Your task to perform on an android device: open chrome privacy settings Image 0: 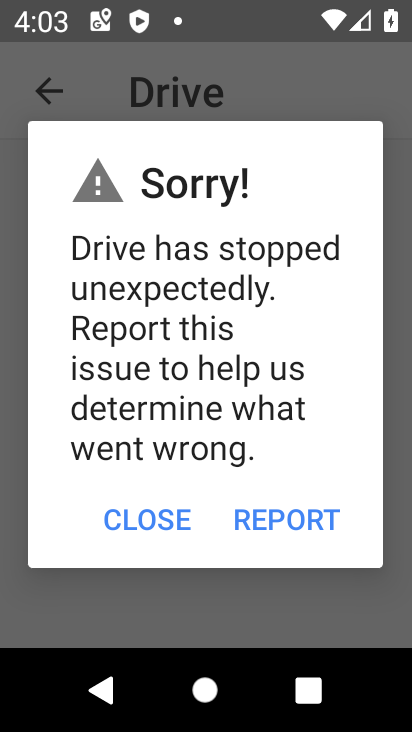
Step 0: press home button
Your task to perform on an android device: open chrome privacy settings Image 1: 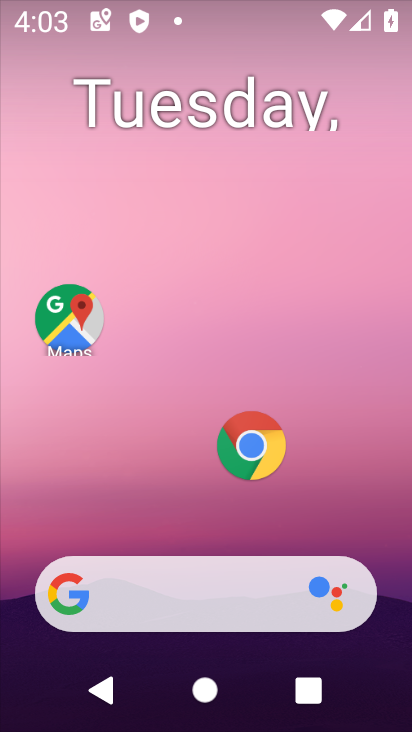
Step 1: drag from (216, 536) to (209, 223)
Your task to perform on an android device: open chrome privacy settings Image 2: 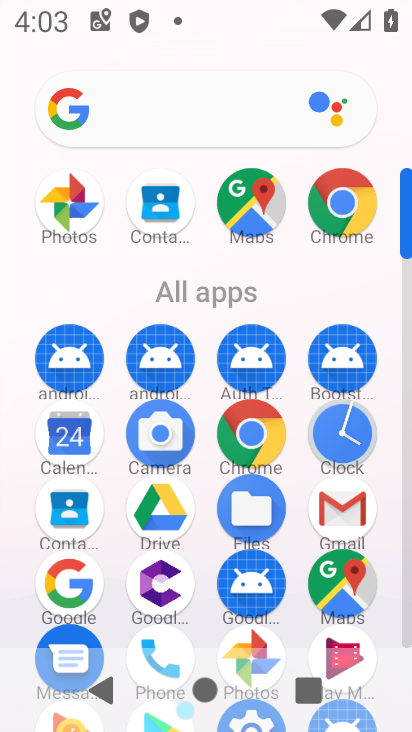
Step 2: click (352, 194)
Your task to perform on an android device: open chrome privacy settings Image 3: 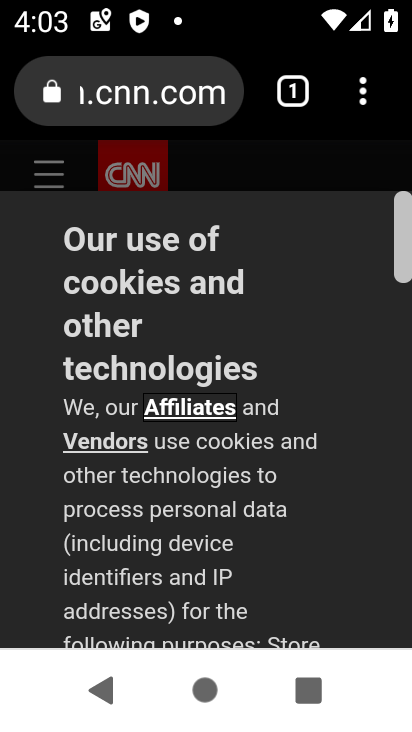
Step 3: click (358, 106)
Your task to perform on an android device: open chrome privacy settings Image 4: 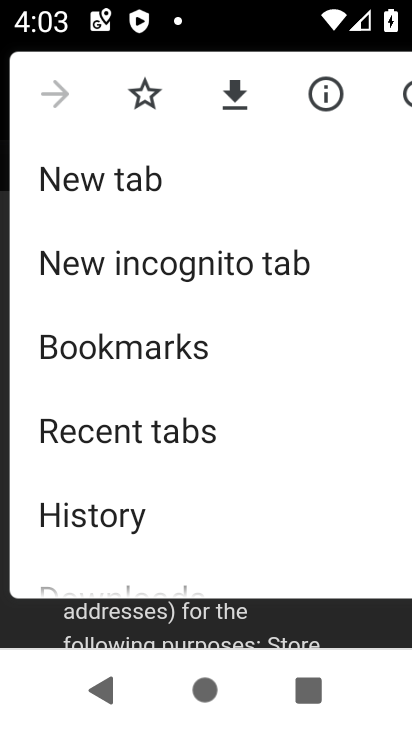
Step 4: drag from (107, 510) to (158, 209)
Your task to perform on an android device: open chrome privacy settings Image 5: 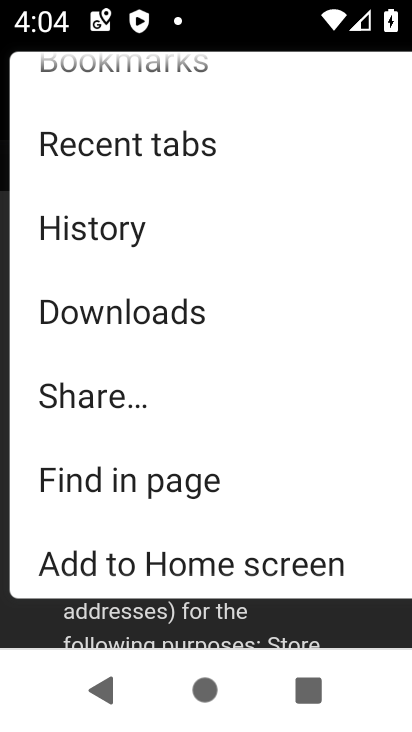
Step 5: drag from (120, 486) to (169, 212)
Your task to perform on an android device: open chrome privacy settings Image 6: 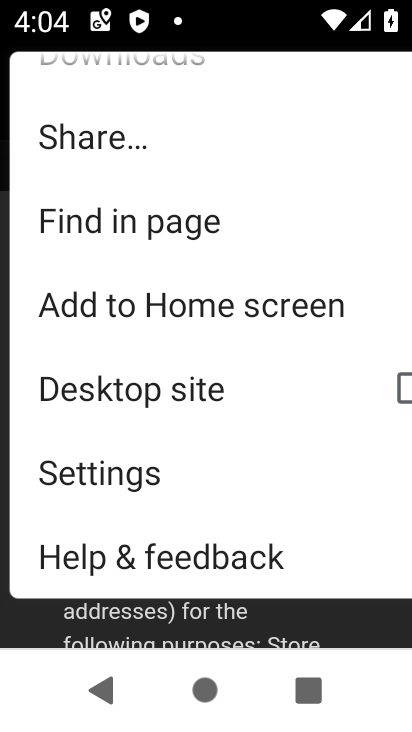
Step 6: click (111, 463)
Your task to perform on an android device: open chrome privacy settings Image 7: 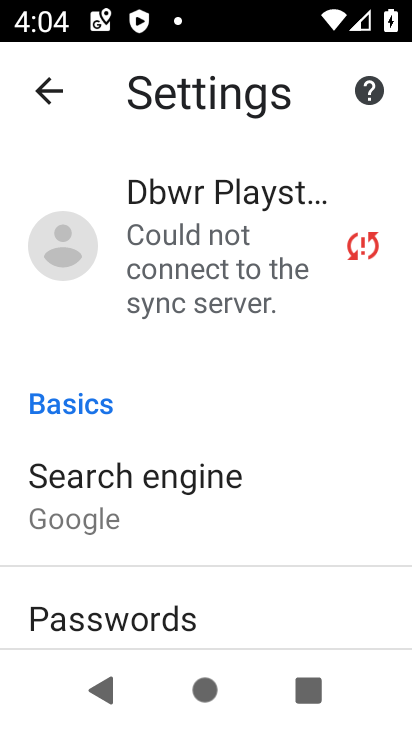
Step 7: drag from (189, 543) to (218, 199)
Your task to perform on an android device: open chrome privacy settings Image 8: 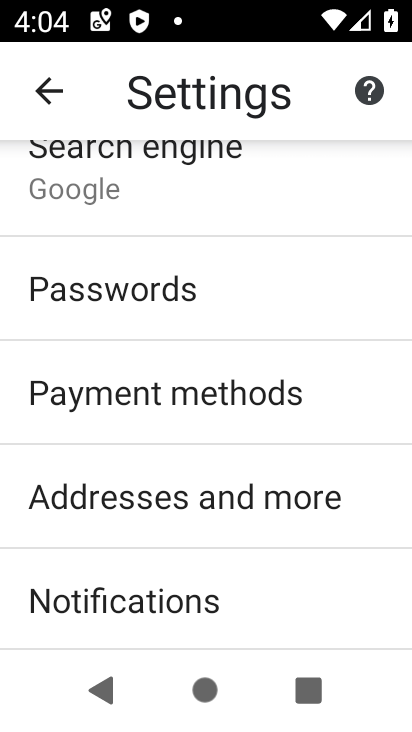
Step 8: drag from (163, 487) to (205, 209)
Your task to perform on an android device: open chrome privacy settings Image 9: 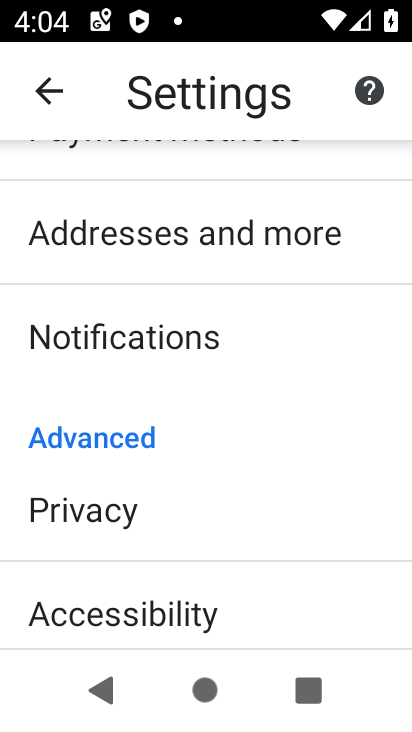
Step 9: drag from (149, 533) to (168, 232)
Your task to perform on an android device: open chrome privacy settings Image 10: 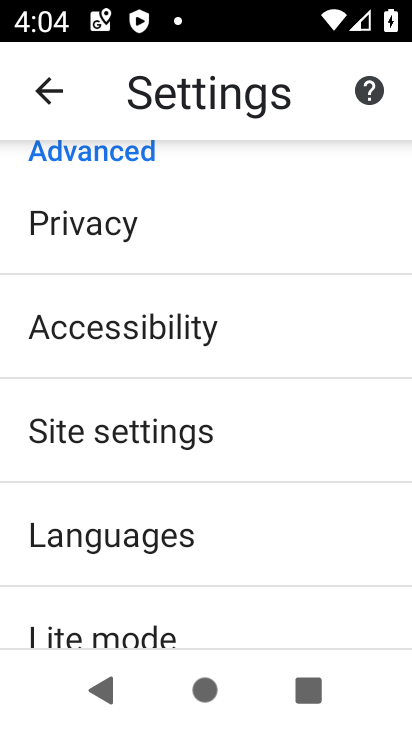
Step 10: click (81, 233)
Your task to perform on an android device: open chrome privacy settings Image 11: 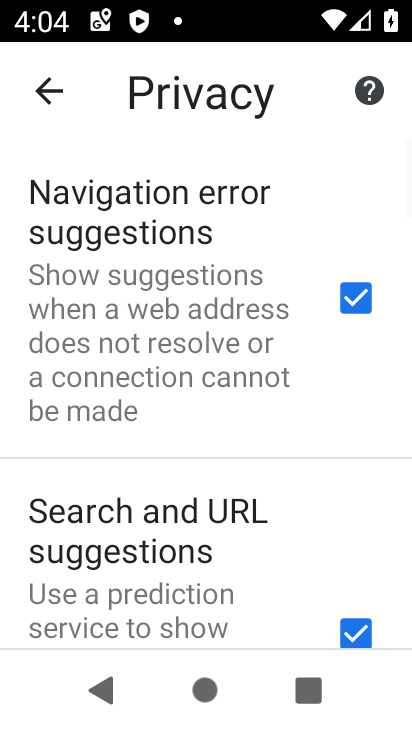
Step 11: task complete